Your task to perform on an android device: find photos in the google photos app Image 0: 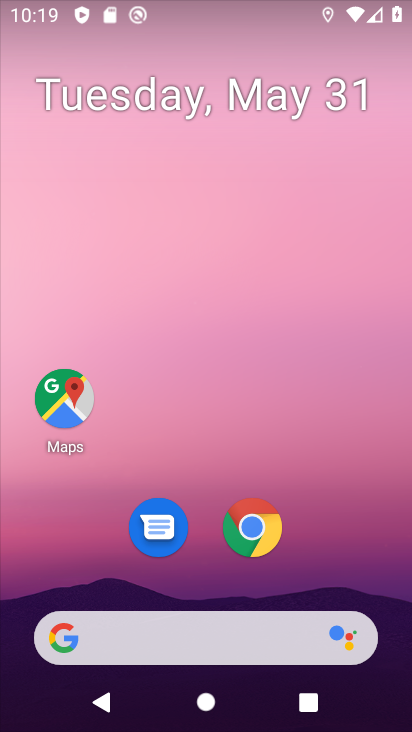
Step 0: drag from (364, 586) to (247, 69)
Your task to perform on an android device: find photos in the google photos app Image 1: 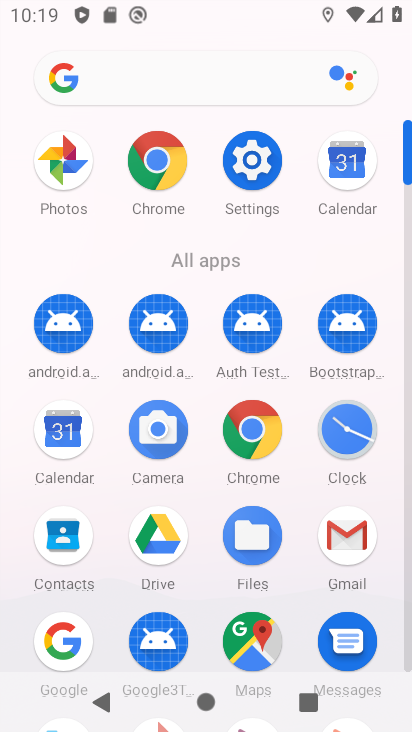
Step 1: click (63, 155)
Your task to perform on an android device: find photos in the google photos app Image 2: 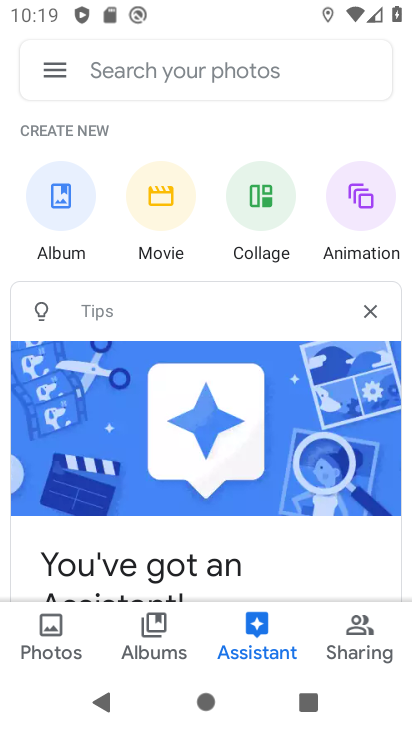
Step 2: click (71, 646)
Your task to perform on an android device: find photos in the google photos app Image 3: 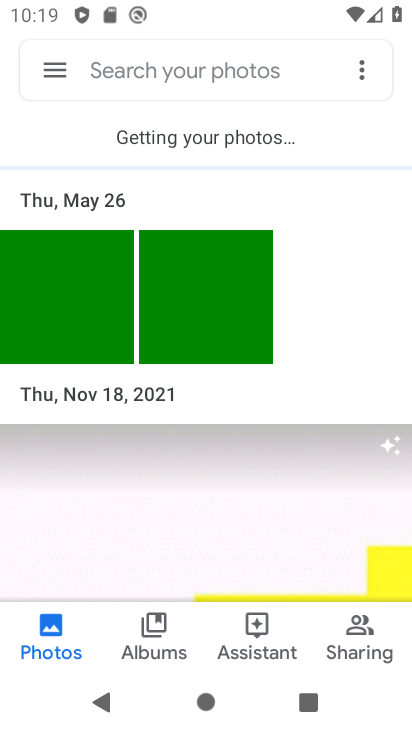
Step 3: task complete